Your task to perform on an android device: turn pop-ups on in chrome Image 0: 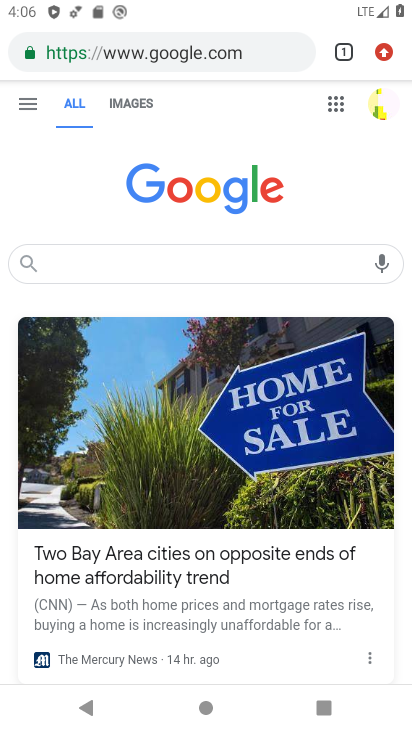
Step 0: drag from (383, 43) to (206, 606)
Your task to perform on an android device: turn pop-ups on in chrome Image 1: 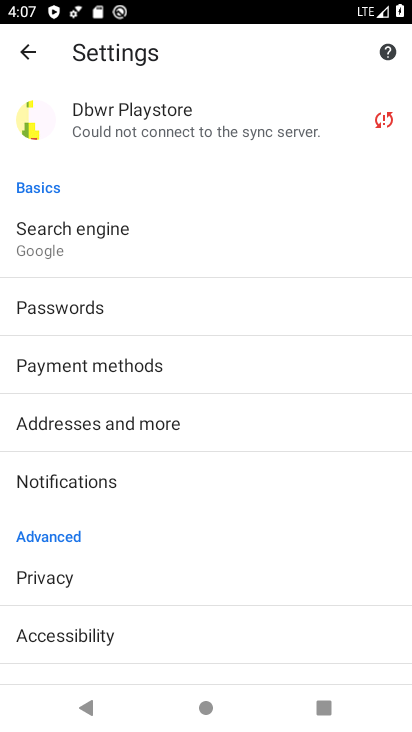
Step 1: drag from (247, 528) to (241, 172)
Your task to perform on an android device: turn pop-ups on in chrome Image 2: 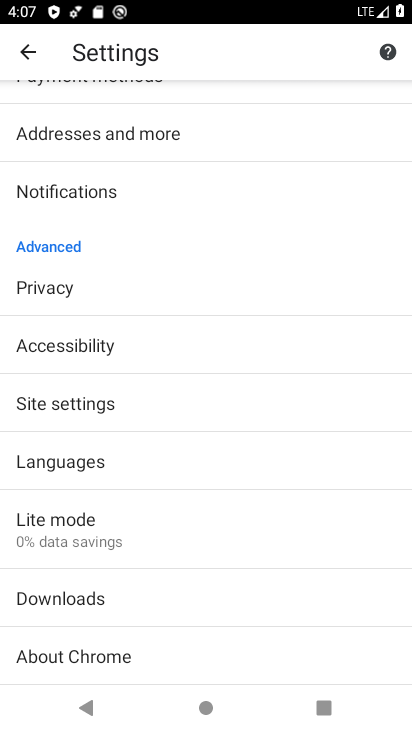
Step 2: drag from (214, 426) to (241, 137)
Your task to perform on an android device: turn pop-ups on in chrome Image 3: 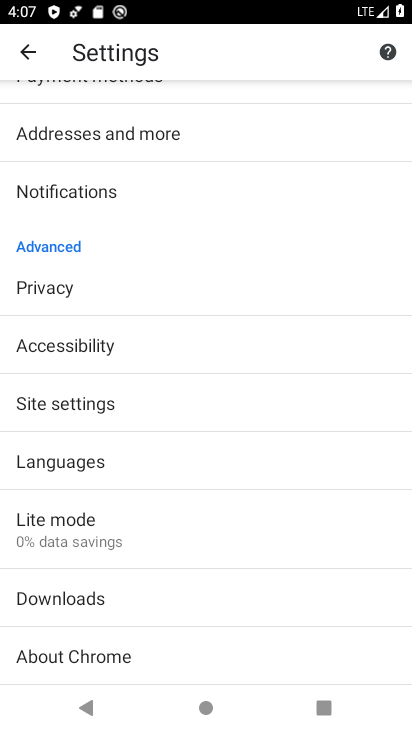
Step 3: click (130, 391)
Your task to perform on an android device: turn pop-ups on in chrome Image 4: 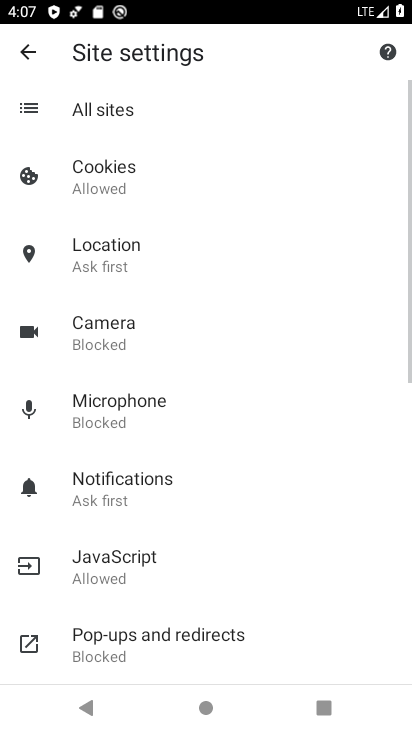
Step 4: drag from (265, 564) to (252, 218)
Your task to perform on an android device: turn pop-ups on in chrome Image 5: 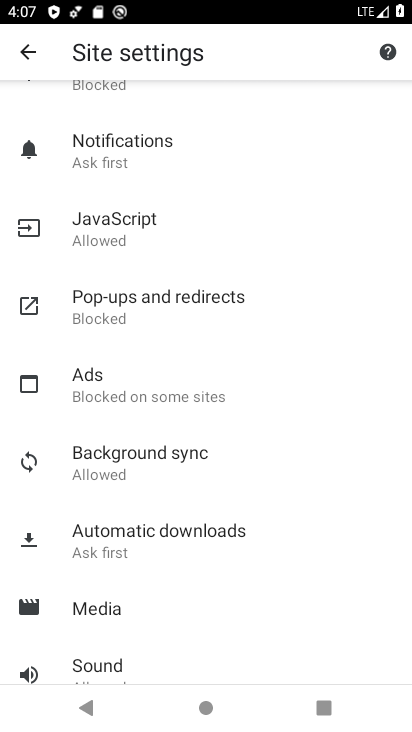
Step 5: click (210, 298)
Your task to perform on an android device: turn pop-ups on in chrome Image 6: 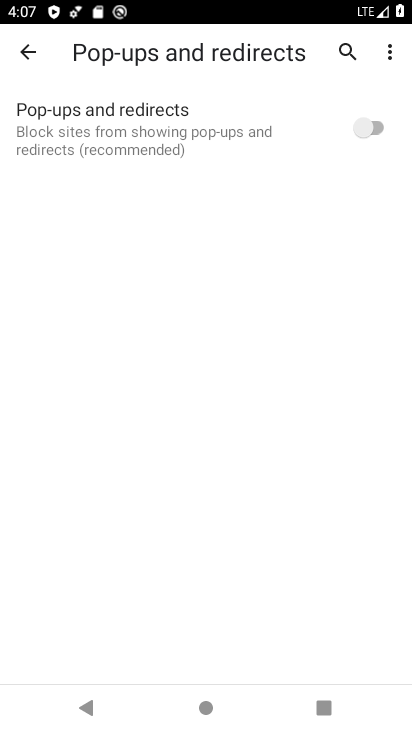
Step 6: click (371, 116)
Your task to perform on an android device: turn pop-ups on in chrome Image 7: 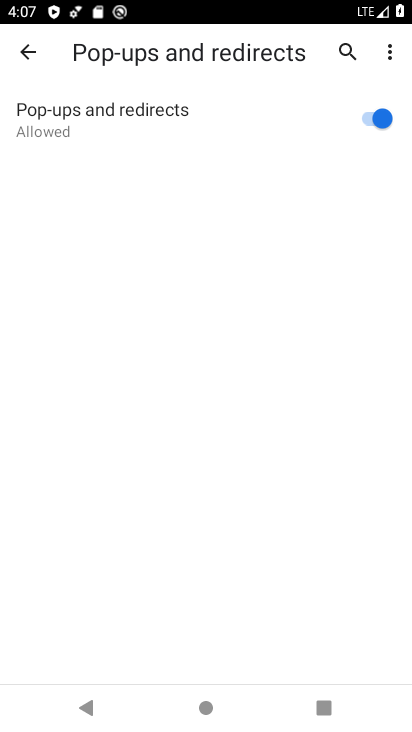
Step 7: task complete